Your task to perform on an android device: What's the weather today? Image 0: 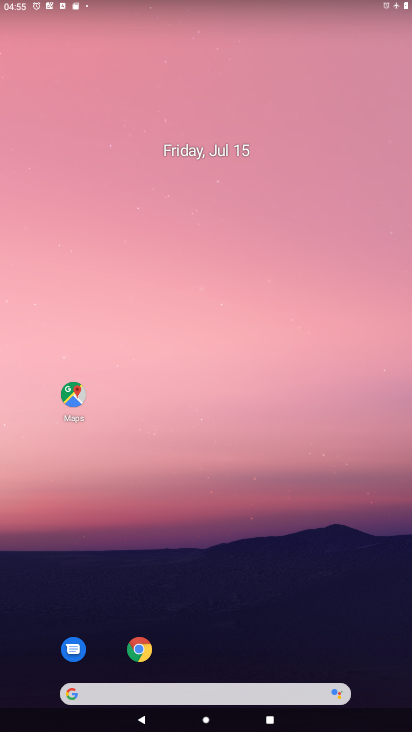
Step 0: drag from (5, 242) to (398, 277)
Your task to perform on an android device: What's the weather today? Image 1: 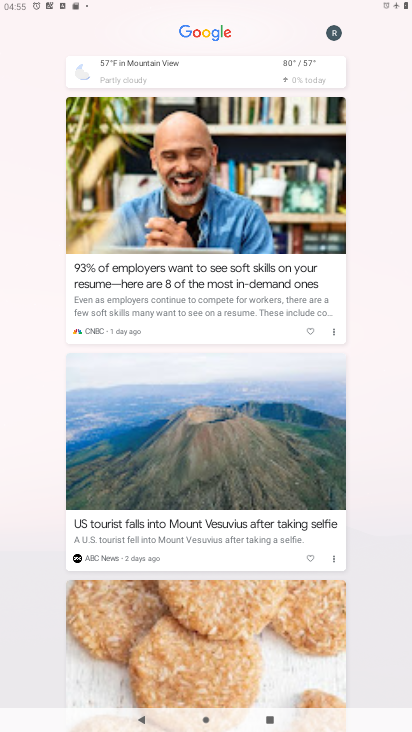
Step 1: click (301, 64)
Your task to perform on an android device: What's the weather today? Image 2: 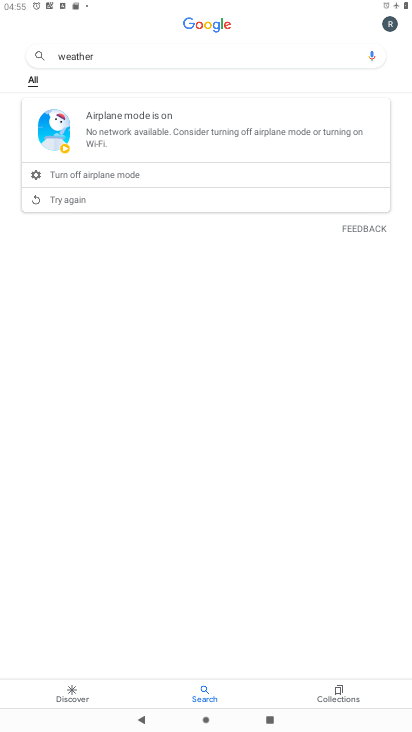
Step 2: click (36, 199)
Your task to perform on an android device: What's the weather today? Image 3: 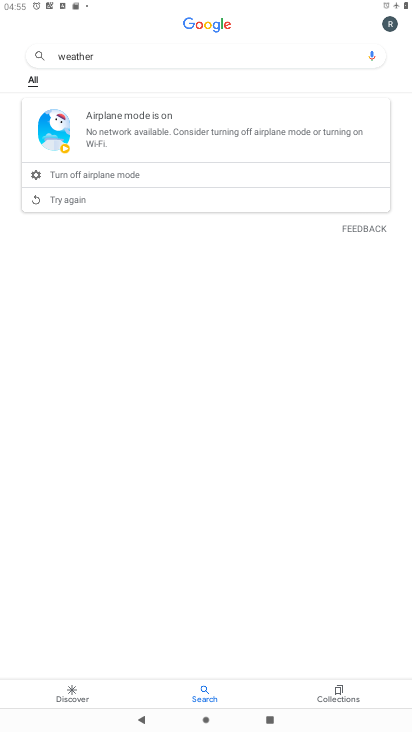
Step 3: click (36, 199)
Your task to perform on an android device: What's the weather today? Image 4: 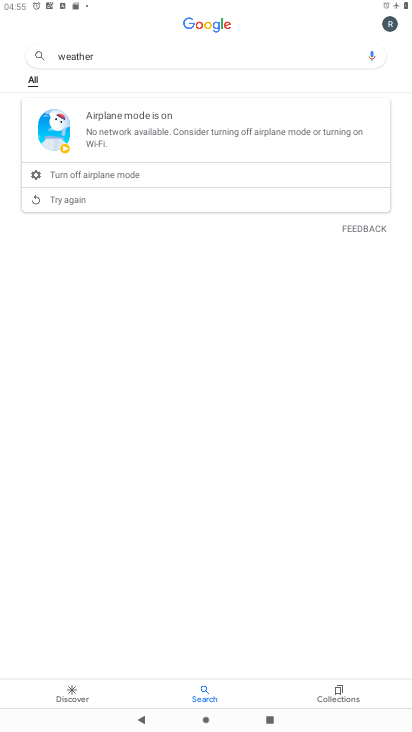
Step 4: click (35, 200)
Your task to perform on an android device: What's the weather today? Image 5: 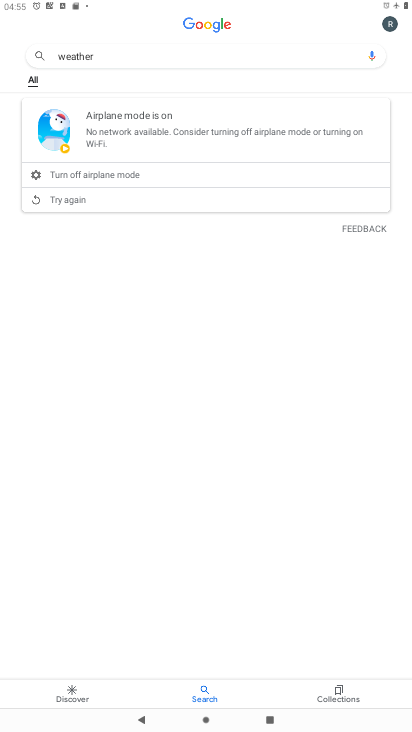
Step 5: task complete